Your task to perform on an android device: turn off priority inbox in the gmail app Image 0: 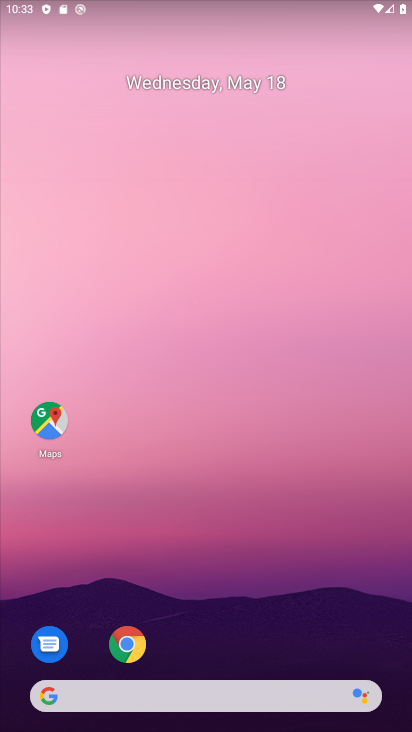
Step 0: drag from (304, 419) to (301, 78)
Your task to perform on an android device: turn off priority inbox in the gmail app Image 1: 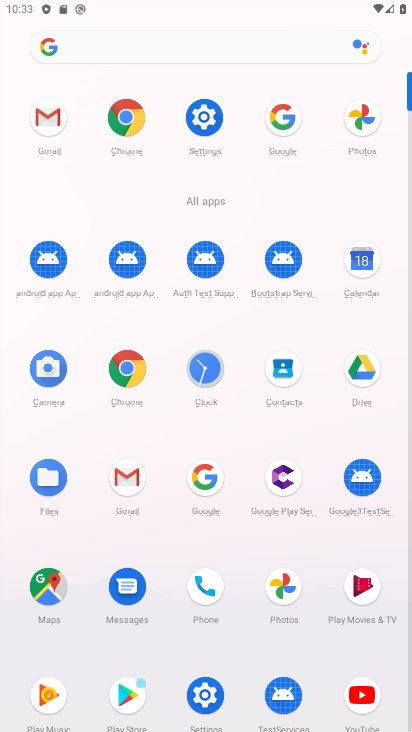
Step 1: click (45, 122)
Your task to perform on an android device: turn off priority inbox in the gmail app Image 2: 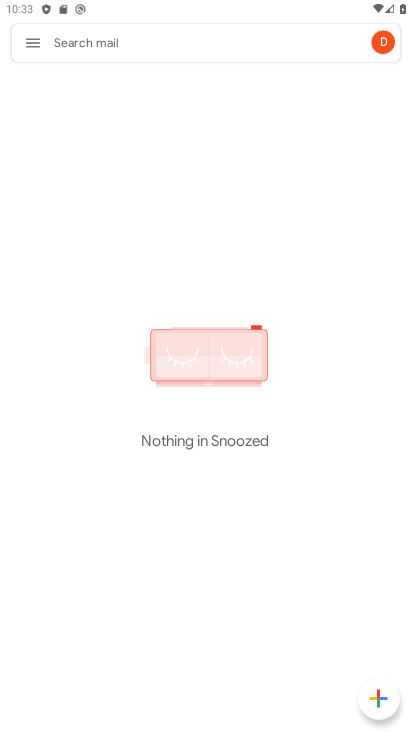
Step 2: click (34, 54)
Your task to perform on an android device: turn off priority inbox in the gmail app Image 3: 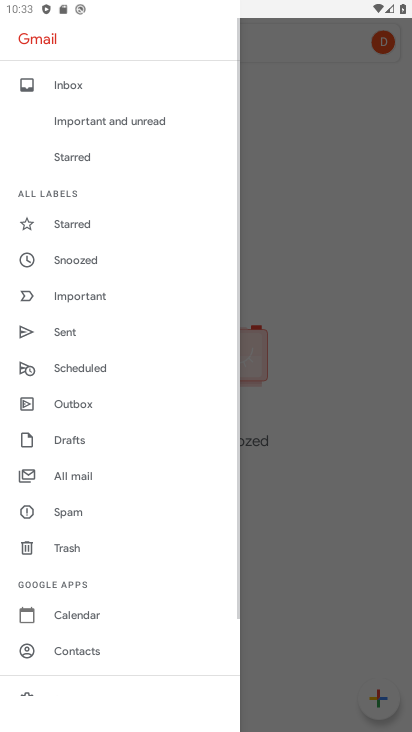
Step 3: drag from (113, 633) to (168, 16)
Your task to perform on an android device: turn off priority inbox in the gmail app Image 4: 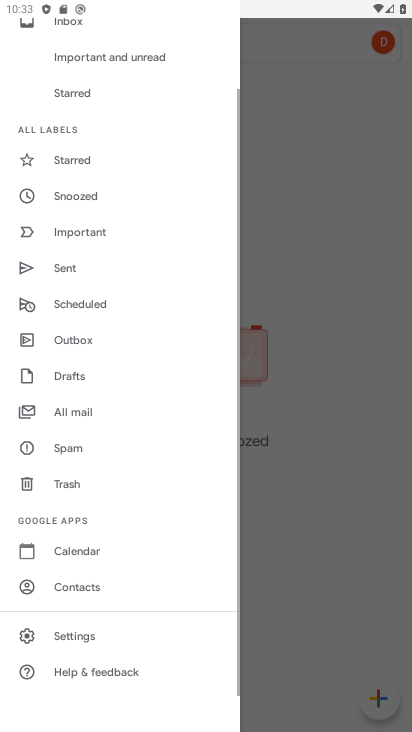
Step 4: click (59, 637)
Your task to perform on an android device: turn off priority inbox in the gmail app Image 5: 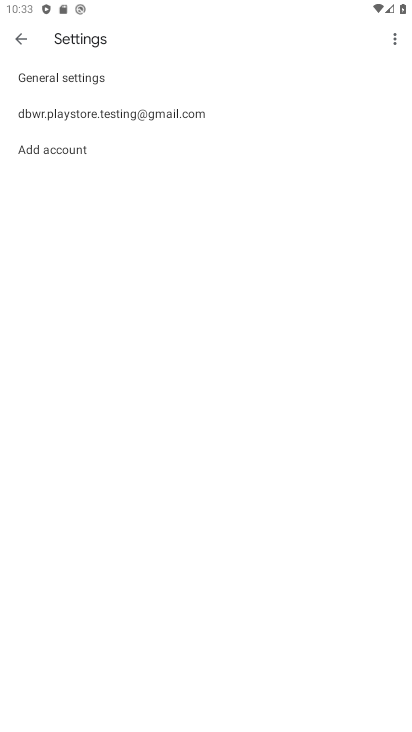
Step 5: click (149, 123)
Your task to perform on an android device: turn off priority inbox in the gmail app Image 6: 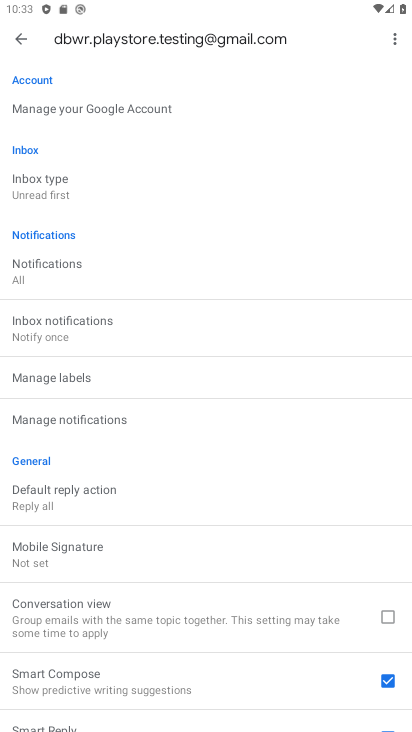
Step 6: click (62, 200)
Your task to perform on an android device: turn off priority inbox in the gmail app Image 7: 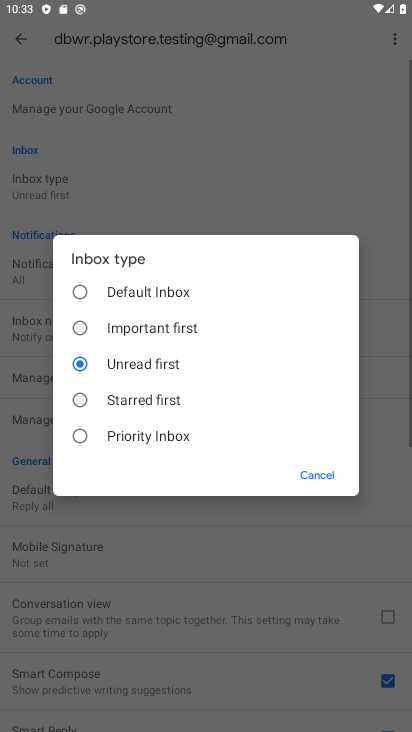
Step 7: task complete